Your task to perform on an android device: View the shopping cart on newegg. Add razer blade to the cart on newegg, then select checkout. Image 0: 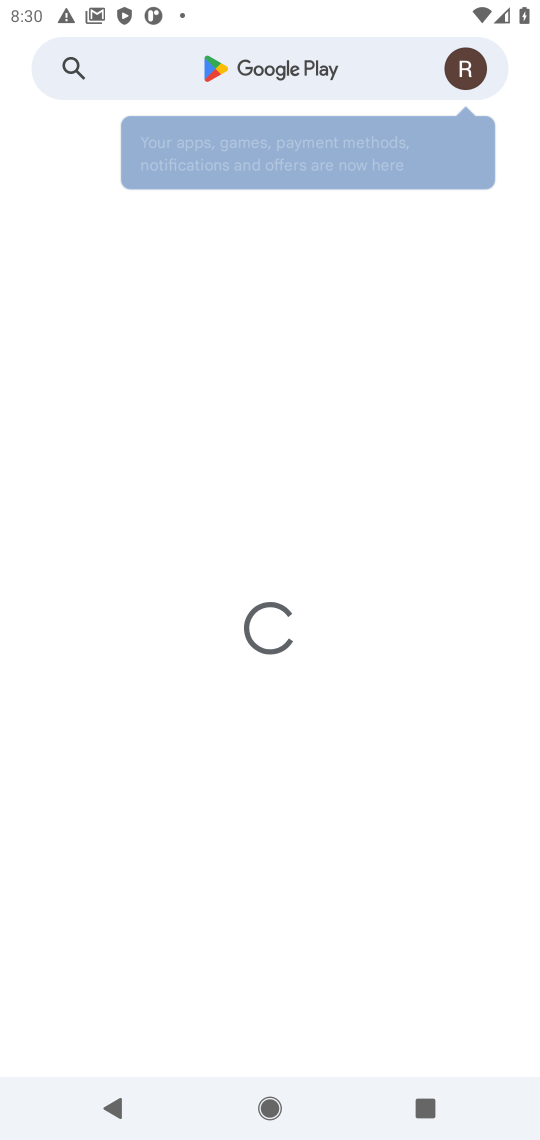
Step 0: press home button
Your task to perform on an android device: View the shopping cart on newegg. Add razer blade to the cart on newegg, then select checkout. Image 1: 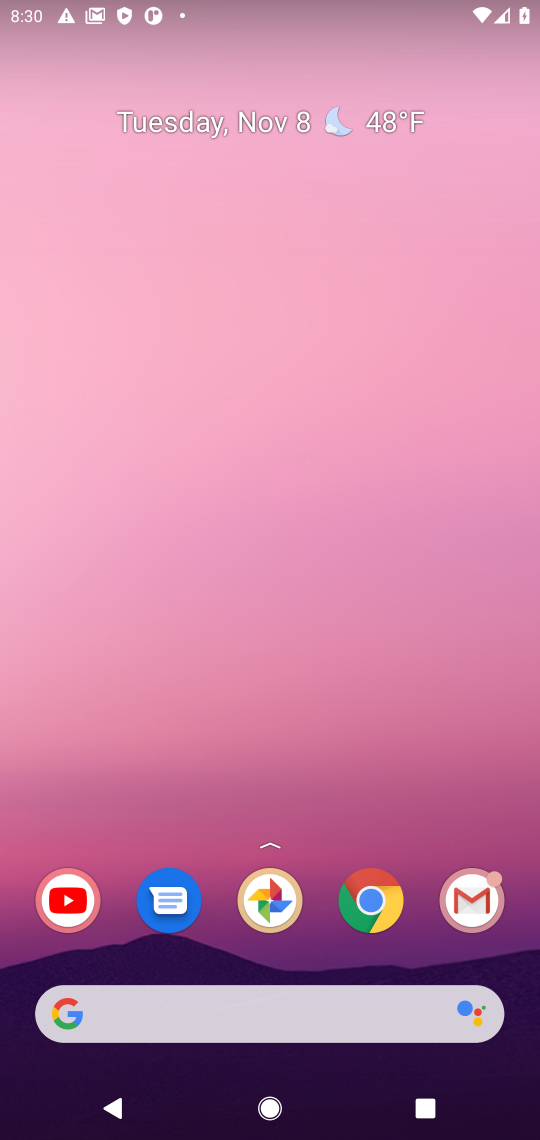
Step 1: click (359, 896)
Your task to perform on an android device: View the shopping cart on newegg. Add razer blade to the cart on newegg, then select checkout. Image 2: 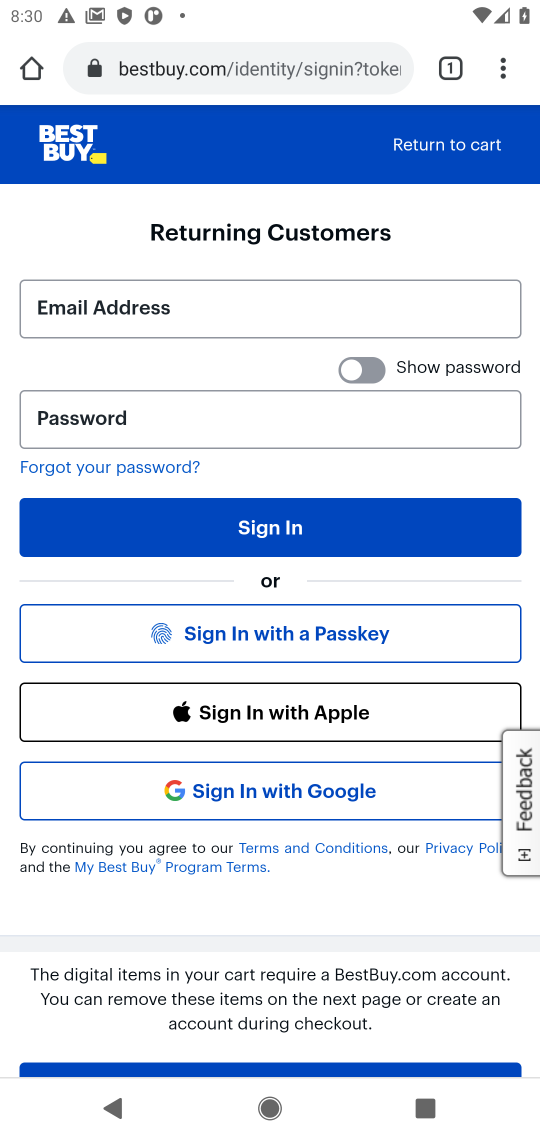
Step 2: click (199, 63)
Your task to perform on an android device: View the shopping cart on newegg. Add razer blade to the cart on newegg, then select checkout. Image 3: 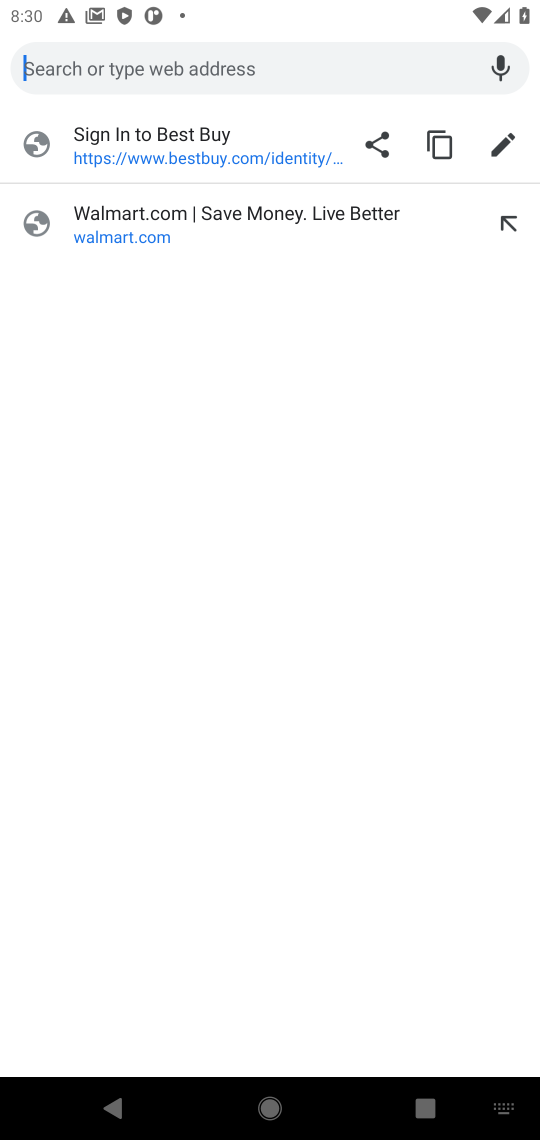
Step 3: type "newegg"
Your task to perform on an android device: View the shopping cart on newegg. Add razer blade to the cart on newegg, then select checkout. Image 4: 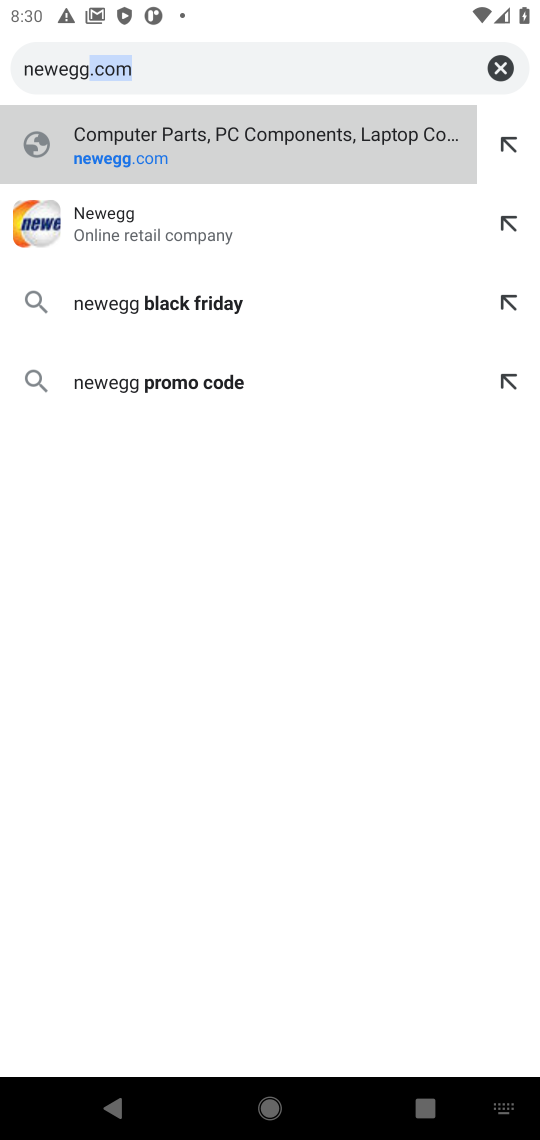
Step 4: click (116, 238)
Your task to perform on an android device: View the shopping cart on newegg. Add razer blade to the cart on newegg, then select checkout. Image 5: 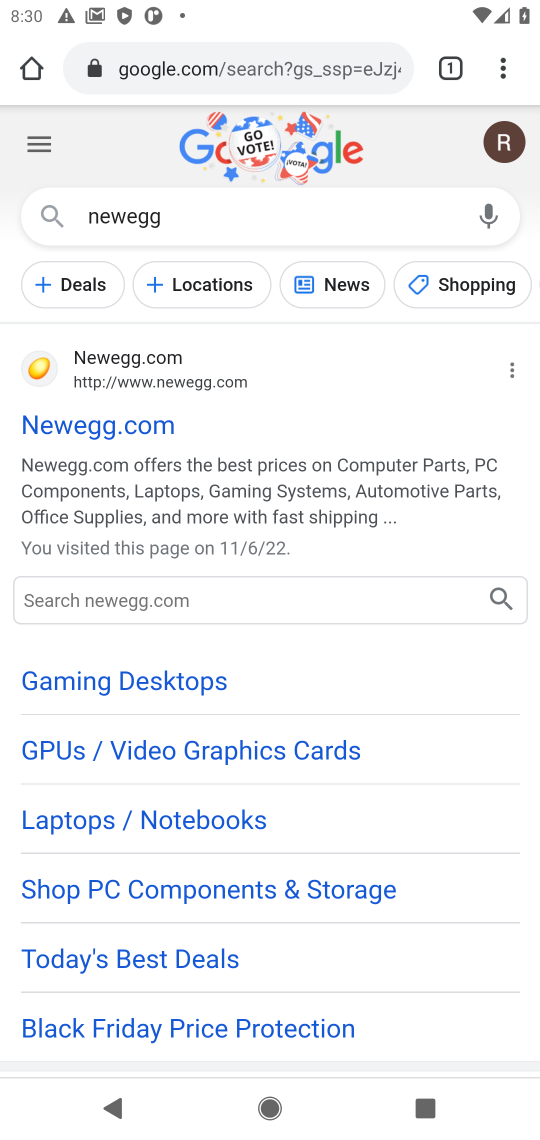
Step 5: drag from (190, 838) to (264, 403)
Your task to perform on an android device: View the shopping cart on newegg. Add razer blade to the cart on newegg, then select checkout. Image 6: 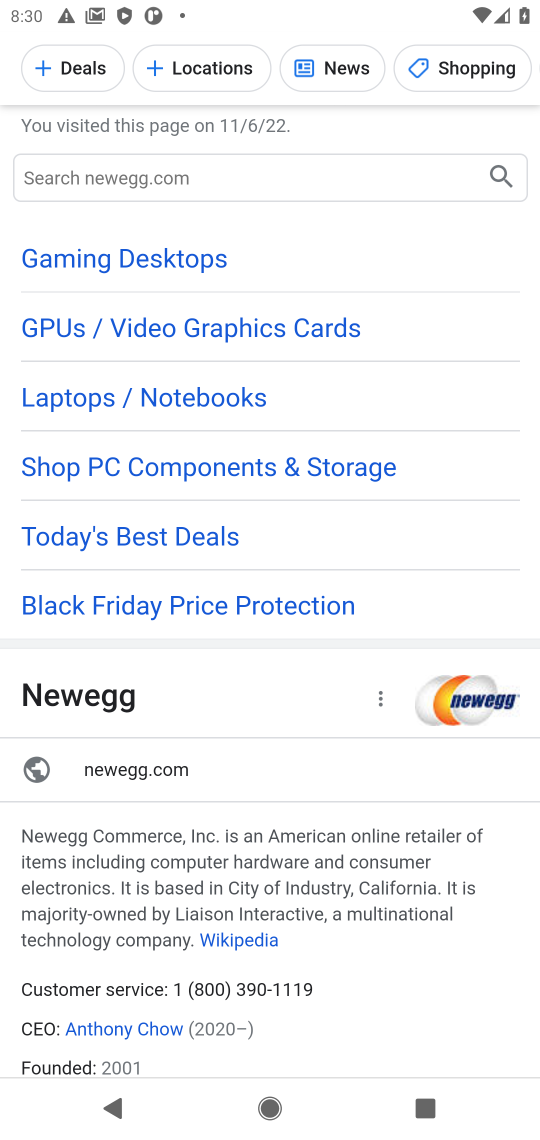
Step 6: drag from (230, 416) to (168, 980)
Your task to perform on an android device: View the shopping cart on newegg. Add razer blade to the cart on newegg, then select checkout. Image 7: 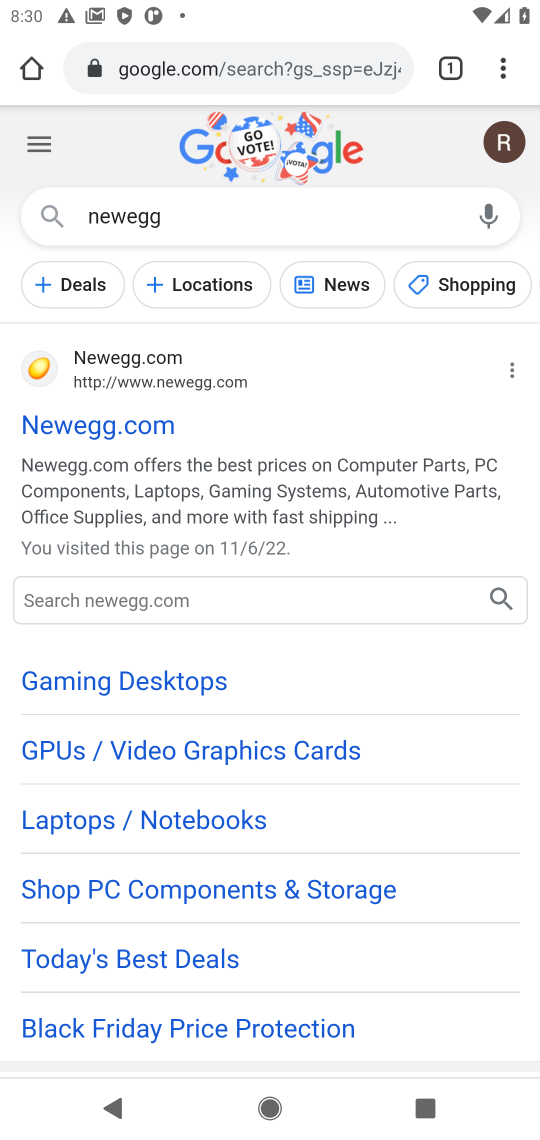
Step 7: click (92, 423)
Your task to perform on an android device: View the shopping cart on newegg. Add razer blade to the cart on newegg, then select checkout. Image 8: 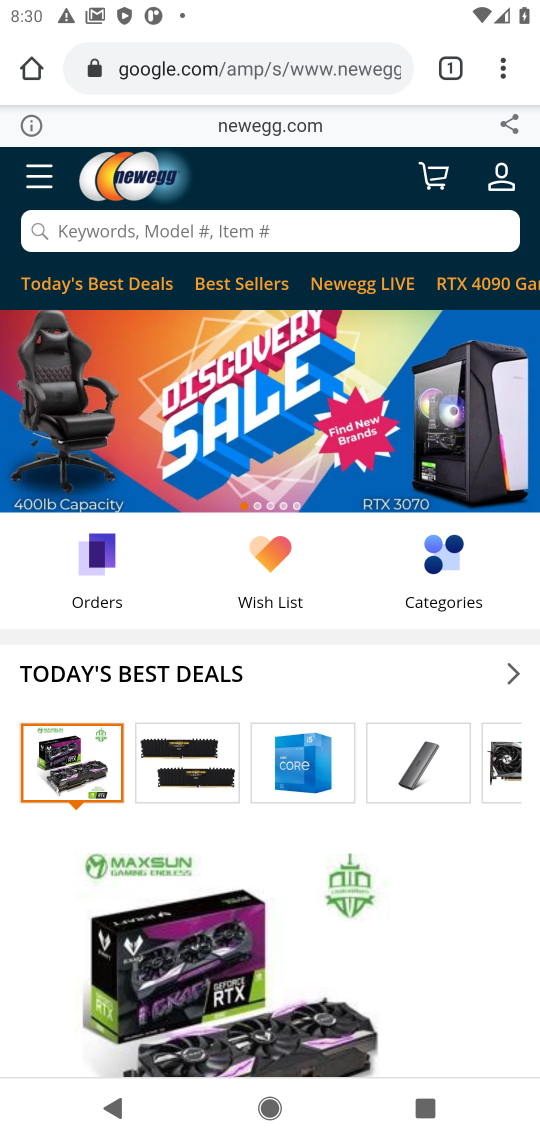
Step 8: click (228, 232)
Your task to perform on an android device: View the shopping cart on newegg. Add razer blade to the cart on newegg, then select checkout. Image 9: 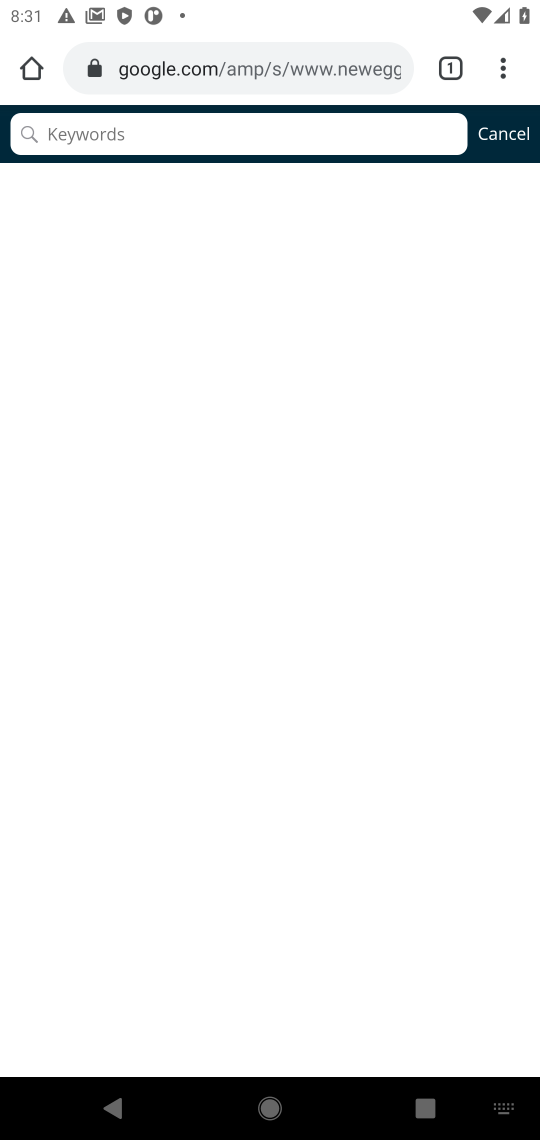
Step 9: type "razer bade"
Your task to perform on an android device: View the shopping cart on newegg. Add razer blade to the cart on newegg, then select checkout. Image 10: 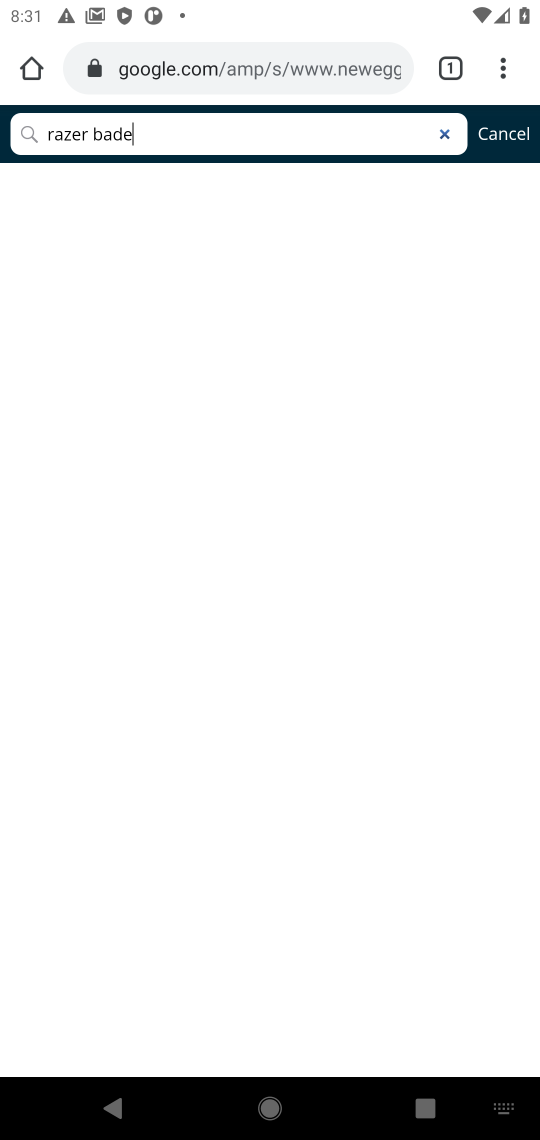
Step 10: click (442, 131)
Your task to perform on an android device: View the shopping cart on newegg. Add razer blade to the cart on newegg, then select checkout. Image 11: 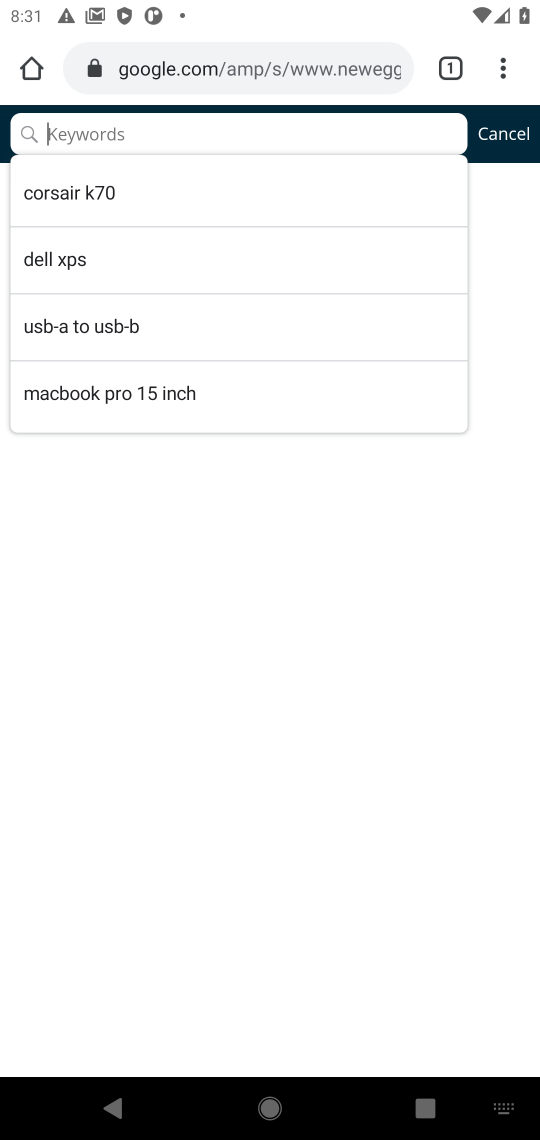
Step 11: press back button
Your task to perform on an android device: View the shopping cart on newegg. Add razer blade to the cart on newegg, then select checkout. Image 12: 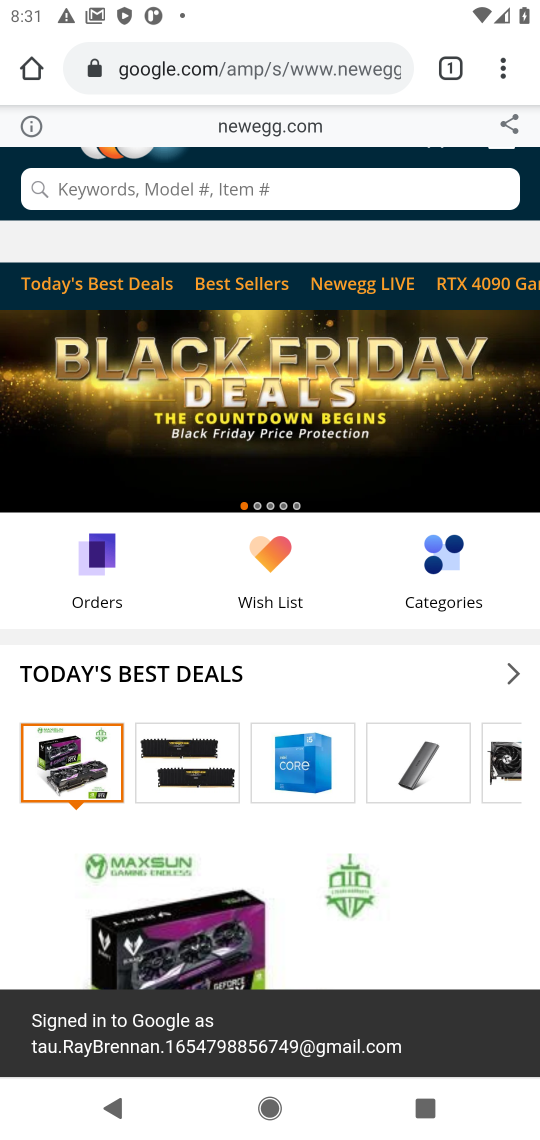
Step 12: press back button
Your task to perform on an android device: View the shopping cart on newegg. Add razer blade to the cart on newegg, then select checkout. Image 13: 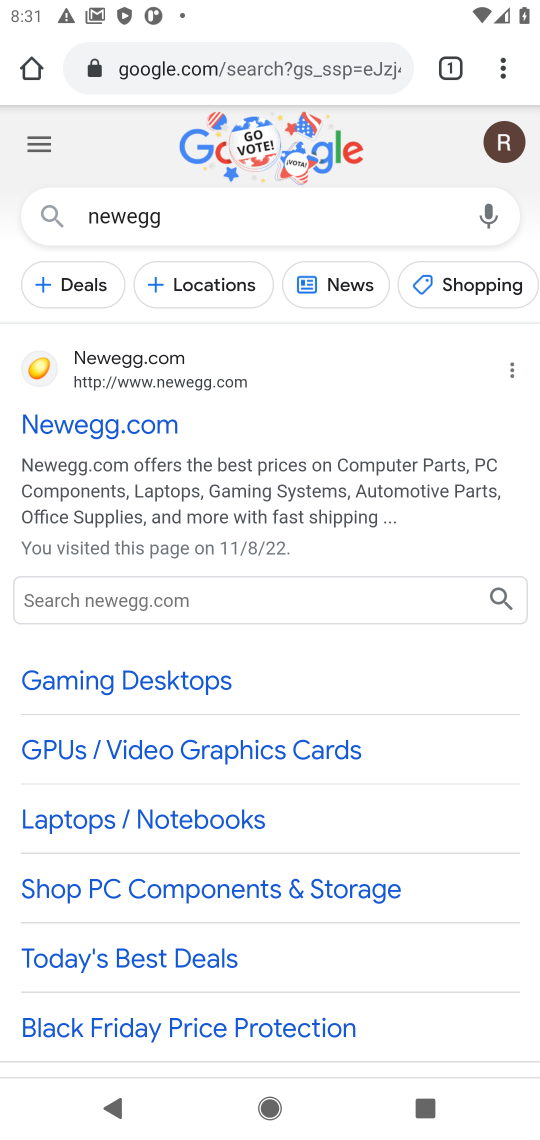
Step 13: drag from (231, 923) to (256, 293)
Your task to perform on an android device: View the shopping cart on newegg. Add razer blade to the cart on newegg, then select checkout. Image 14: 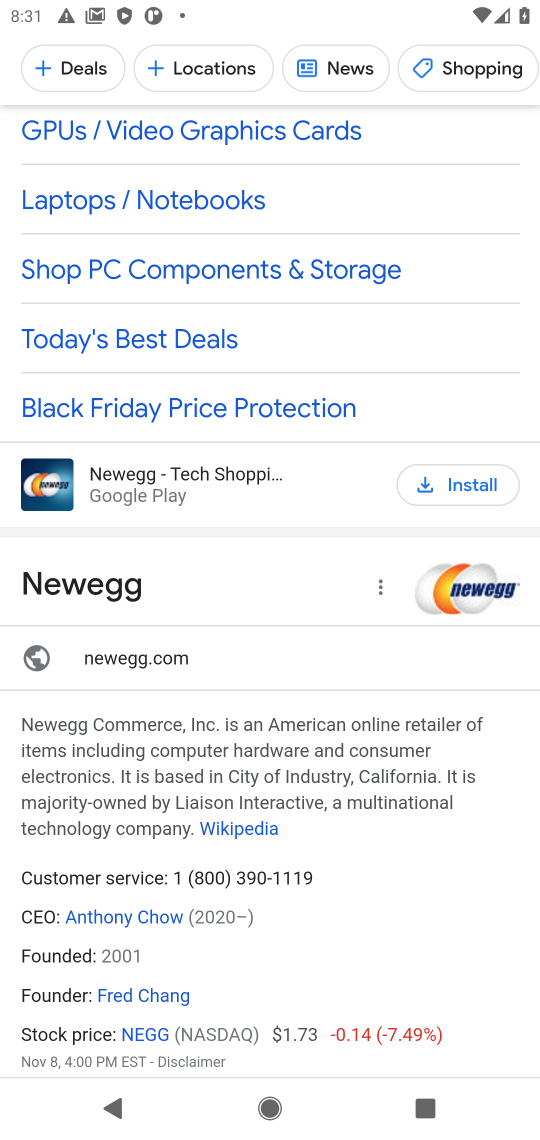
Step 14: drag from (193, 877) to (292, 352)
Your task to perform on an android device: View the shopping cart on newegg. Add razer blade to the cart on newegg, then select checkout. Image 15: 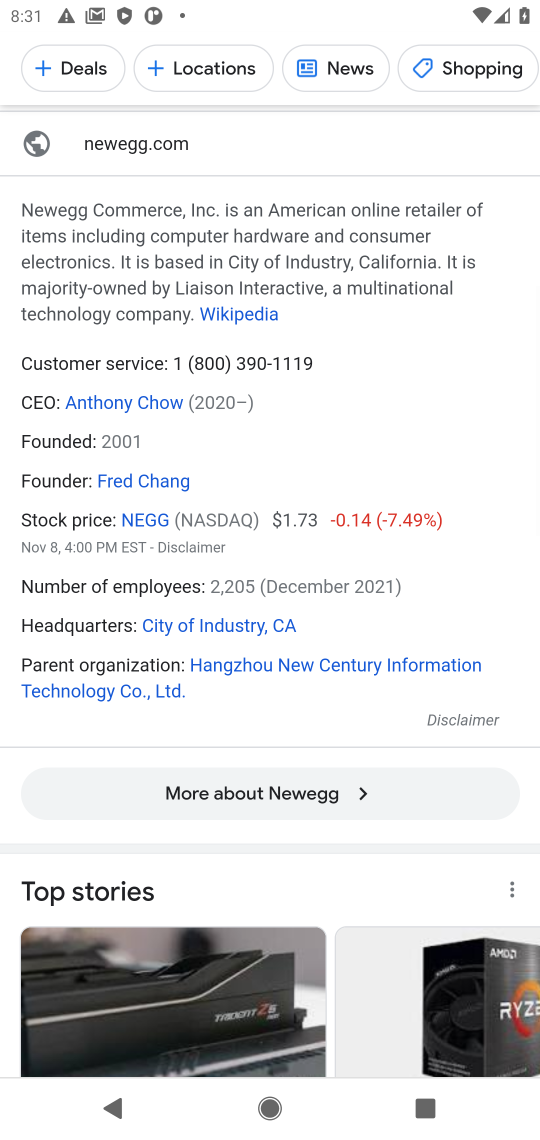
Step 15: drag from (187, 968) to (184, 400)
Your task to perform on an android device: View the shopping cart on newegg. Add razer blade to the cart on newegg, then select checkout. Image 16: 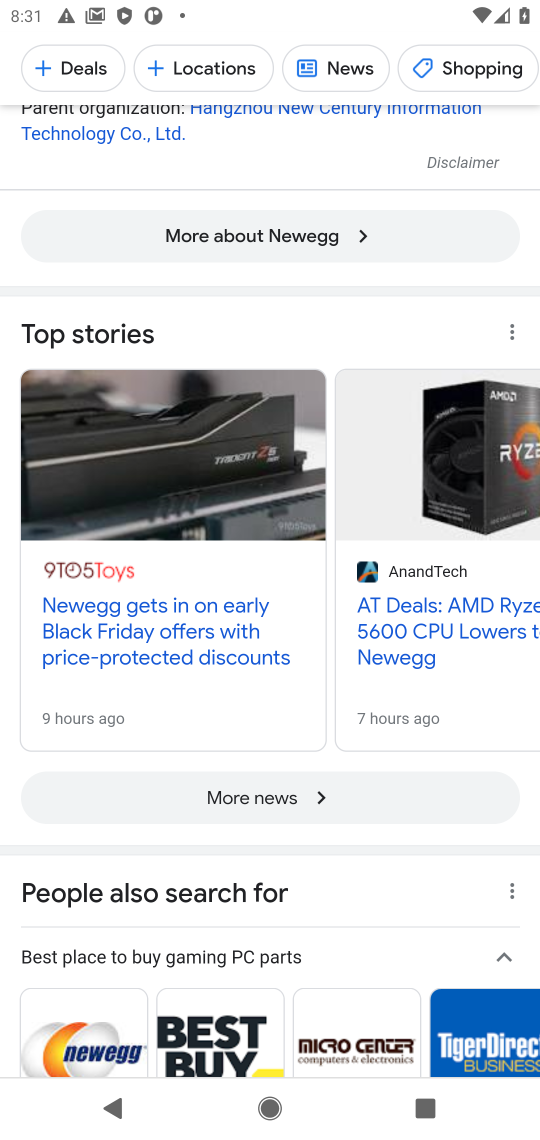
Step 16: drag from (264, 480) to (222, 1010)
Your task to perform on an android device: View the shopping cart on newegg. Add razer blade to the cart on newegg, then select checkout. Image 17: 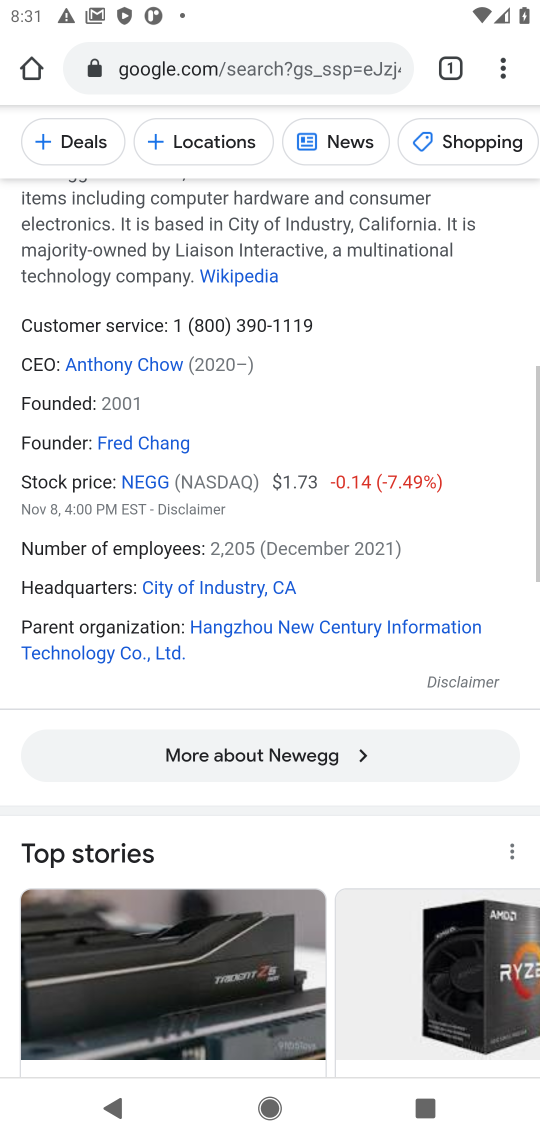
Step 17: drag from (164, 672) to (46, 928)
Your task to perform on an android device: View the shopping cart on newegg. Add razer blade to the cart on newegg, then select checkout. Image 18: 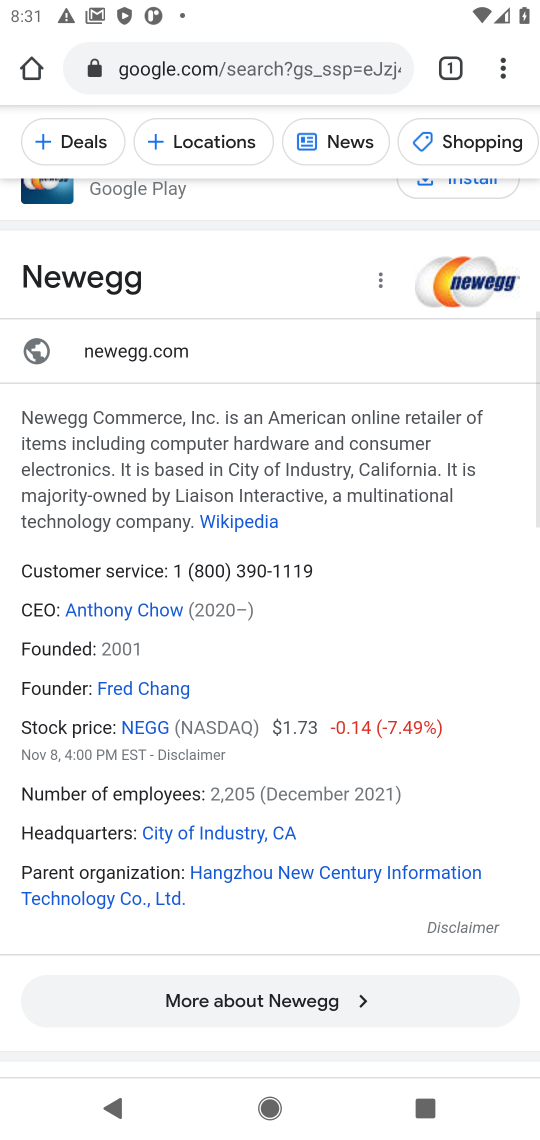
Step 18: drag from (137, 360) to (8, 653)
Your task to perform on an android device: View the shopping cart on newegg. Add razer blade to the cart on newegg, then select checkout. Image 19: 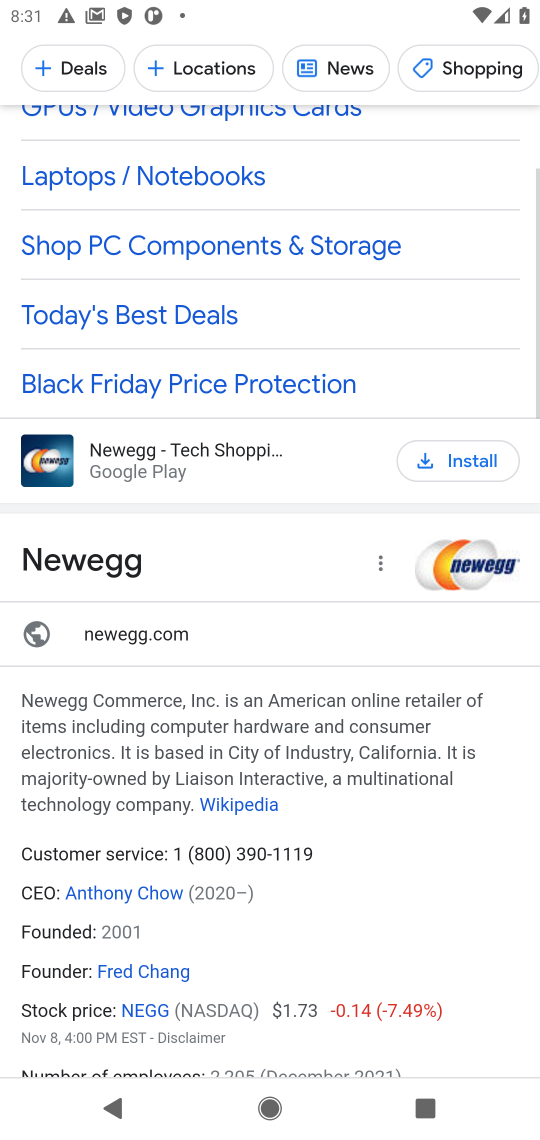
Step 19: drag from (300, 469) to (10, 693)
Your task to perform on an android device: View the shopping cart on newegg. Add razer blade to the cart on newegg, then select checkout. Image 20: 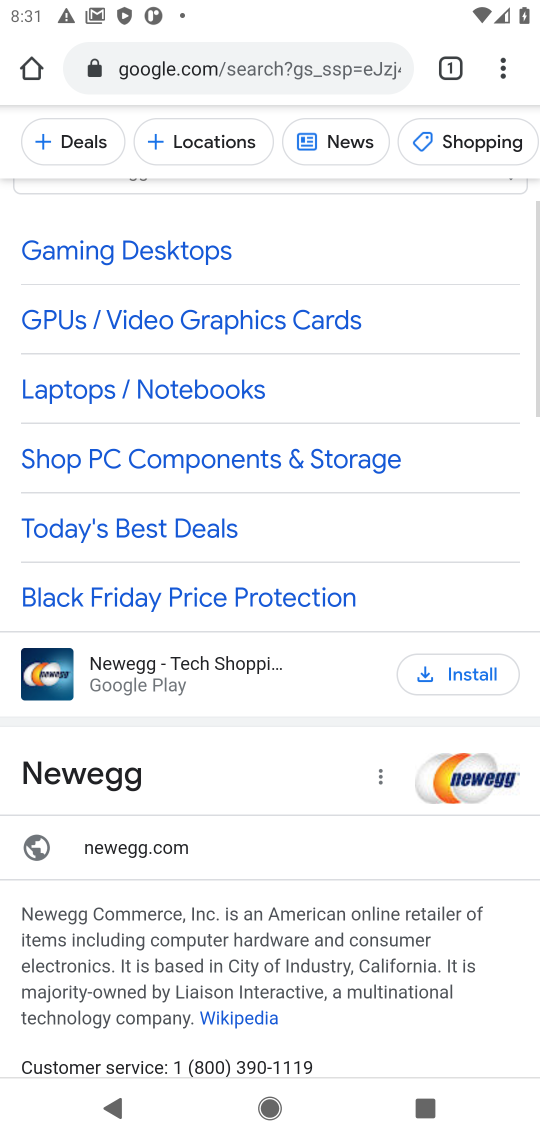
Step 20: drag from (201, 413) to (11, 816)
Your task to perform on an android device: View the shopping cart on newegg. Add razer blade to the cart on newegg, then select checkout. Image 21: 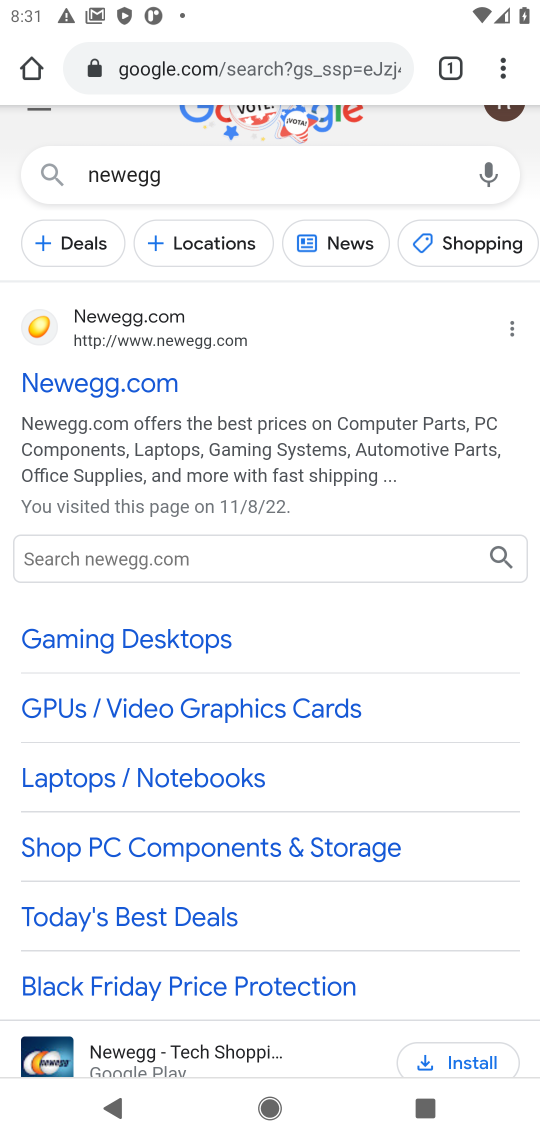
Step 21: drag from (274, 653) to (124, 859)
Your task to perform on an android device: View the shopping cart on newegg. Add razer blade to the cart on newegg, then select checkout. Image 22: 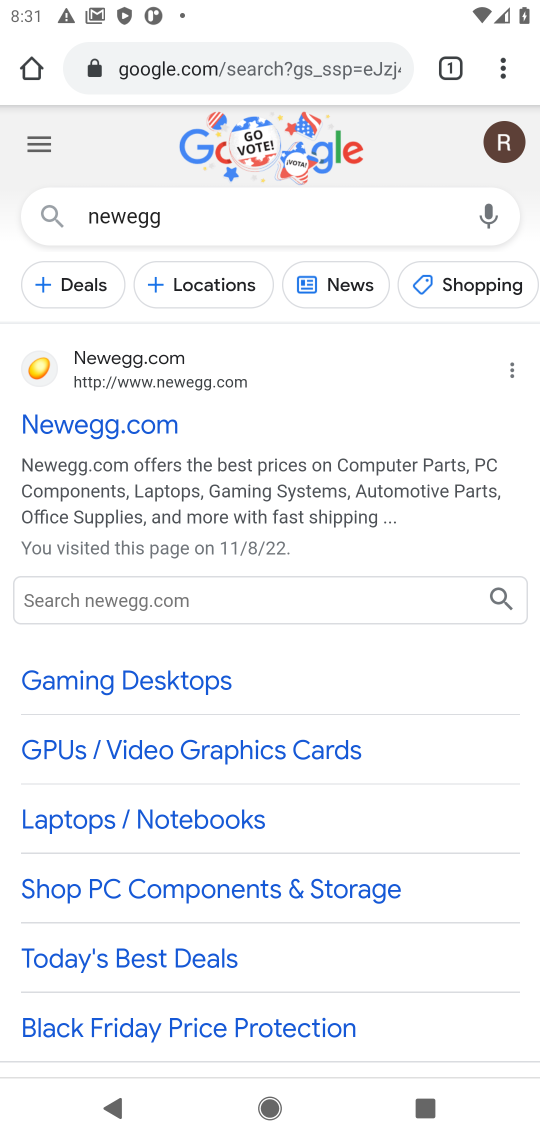
Step 22: click (77, 421)
Your task to perform on an android device: View the shopping cart on newegg. Add razer blade to the cart on newegg, then select checkout. Image 23: 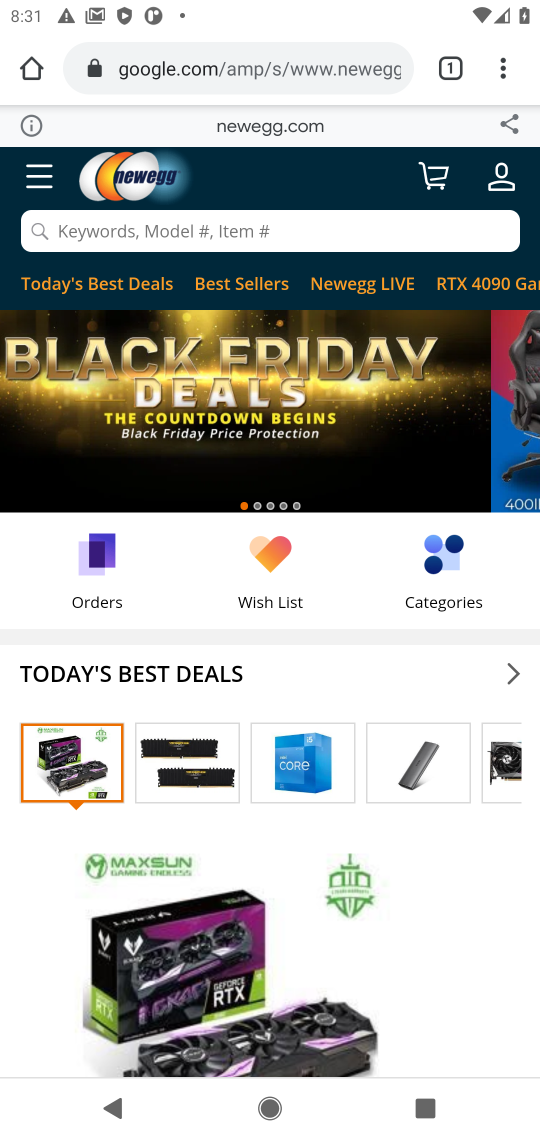
Step 23: click (139, 223)
Your task to perform on an android device: View the shopping cart on newegg. Add razer blade to the cart on newegg, then select checkout. Image 24: 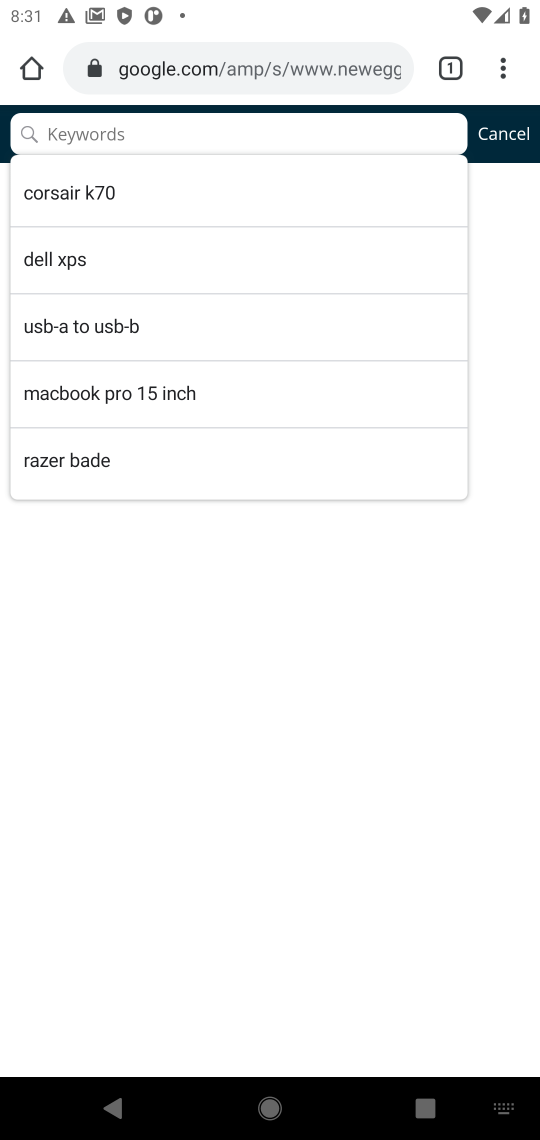
Step 24: click (76, 462)
Your task to perform on an android device: View the shopping cart on newegg. Add razer blade to the cart on newegg, then select checkout. Image 25: 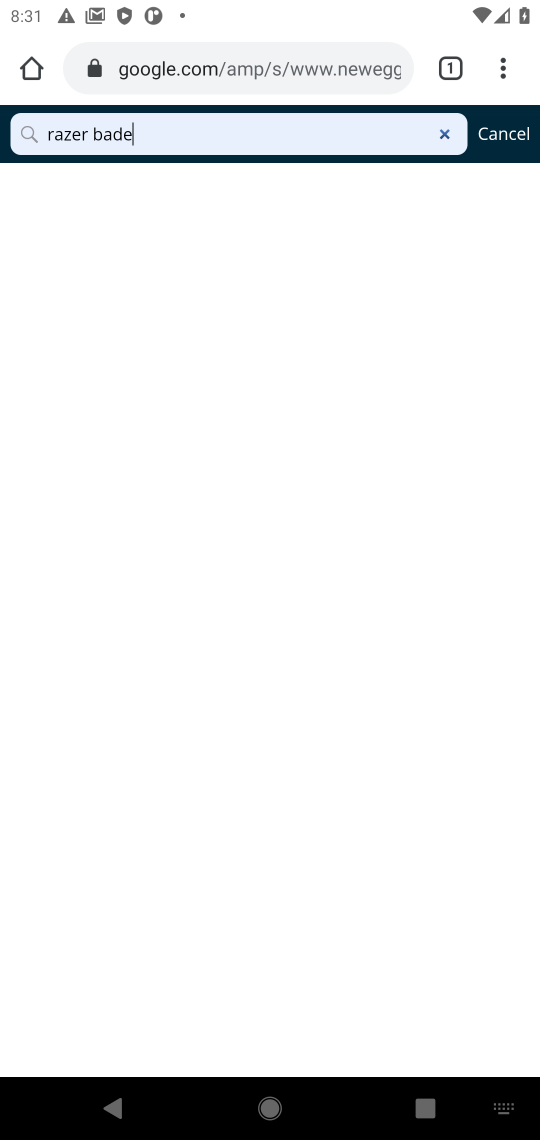
Step 25: type ""
Your task to perform on an android device: View the shopping cart on newegg. Add razer blade to the cart on newegg, then select checkout. Image 26: 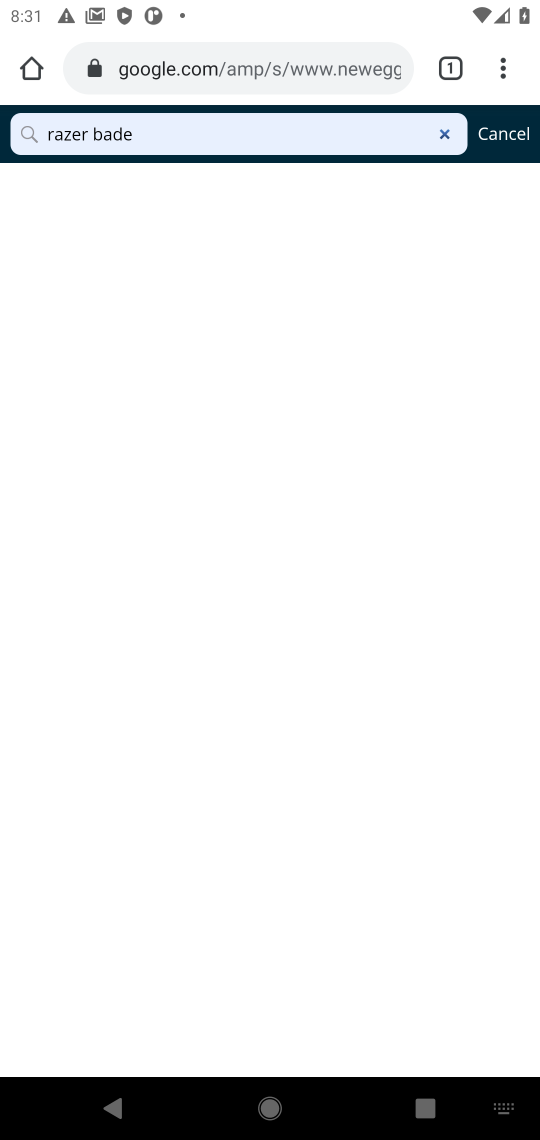
Step 26: click (444, 136)
Your task to perform on an android device: View the shopping cart on newegg. Add razer blade to the cart on newegg, then select checkout. Image 27: 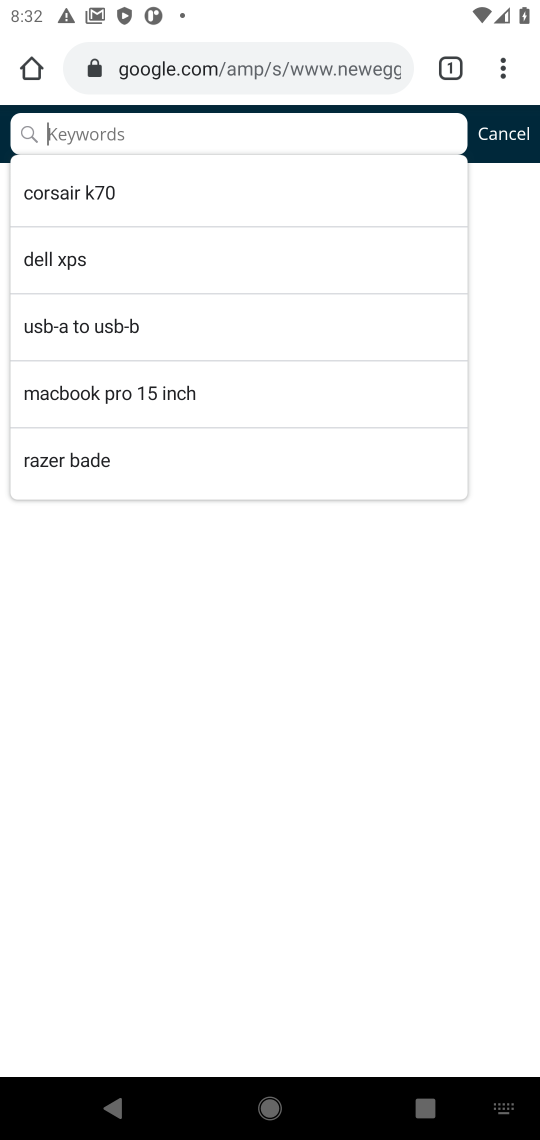
Step 27: type "razer blade"
Your task to perform on an android device: View the shopping cart on newegg. Add razer blade to the cart on newegg, then select checkout. Image 28: 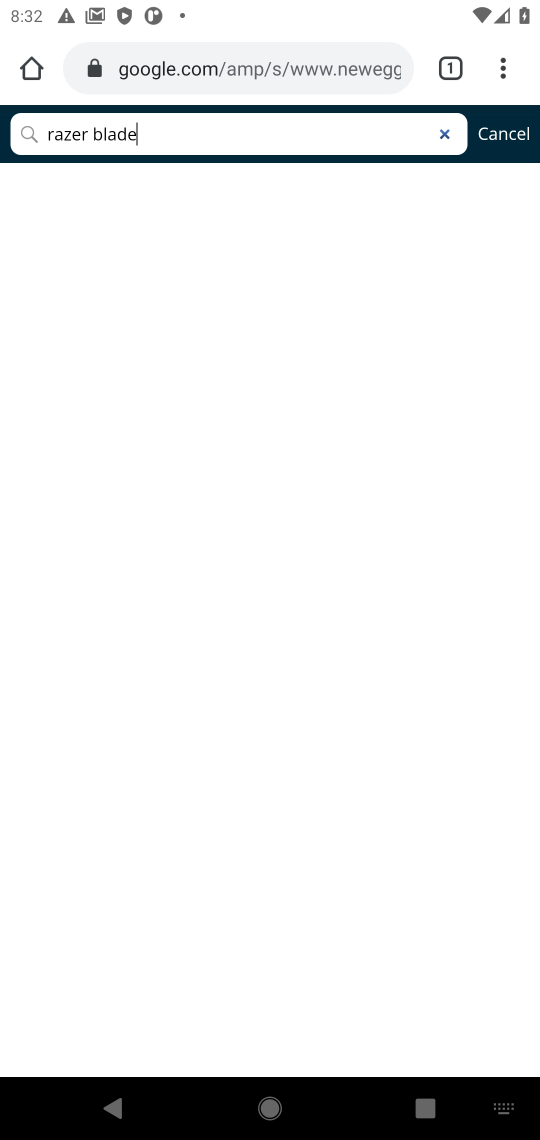
Step 28: click (442, 131)
Your task to perform on an android device: View the shopping cart on newegg. Add razer blade to the cart on newegg, then select checkout. Image 29: 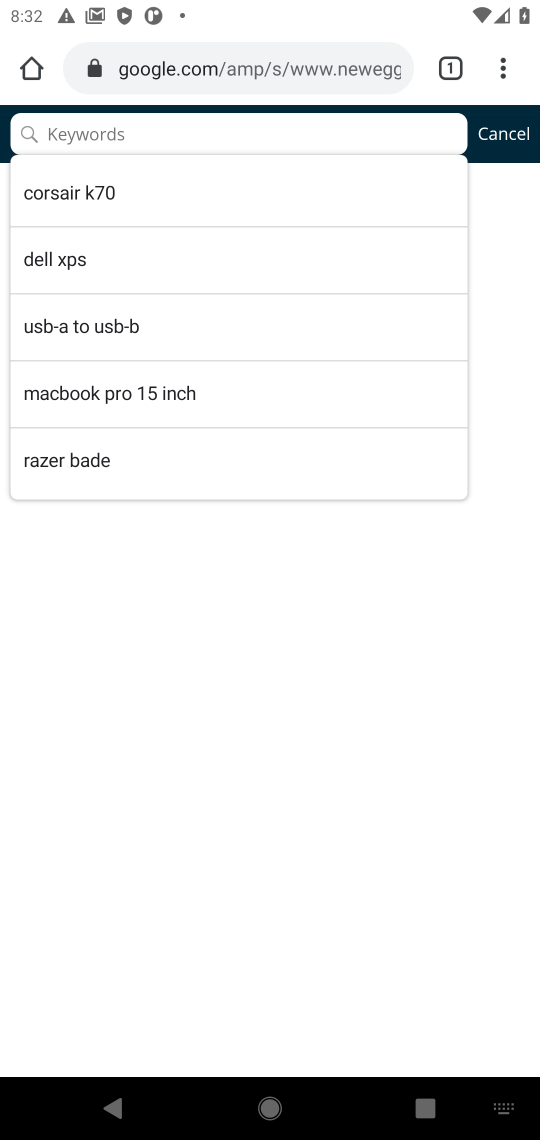
Step 29: press back button
Your task to perform on an android device: View the shopping cart on newegg. Add razer blade to the cart on newegg, then select checkout. Image 30: 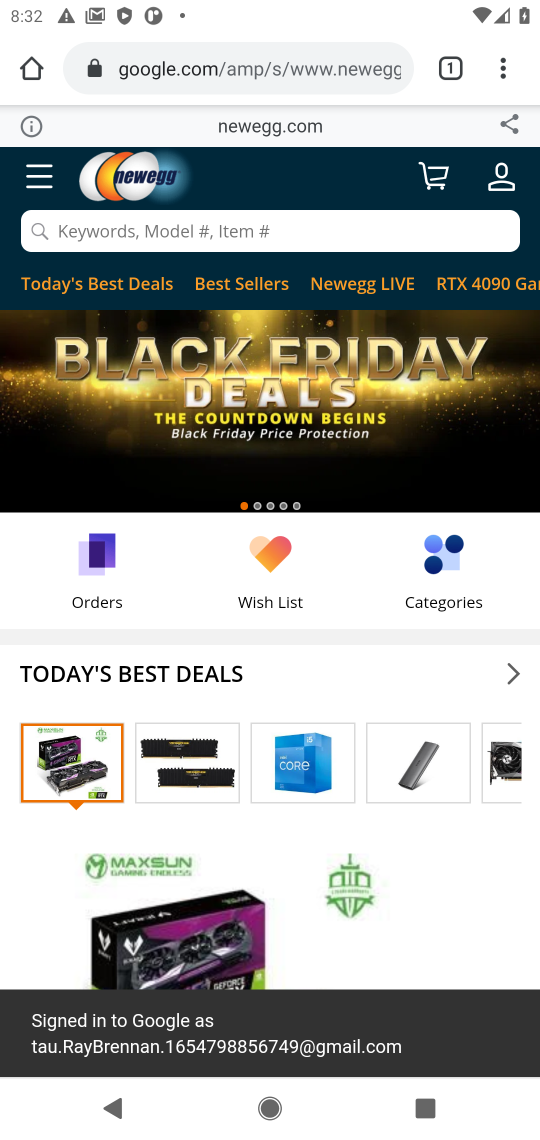
Step 30: press back button
Your task to perform on an android device: View the shopping cart on newegg. Add razer blade to the cart on newegg, then select checkout. Image 31: 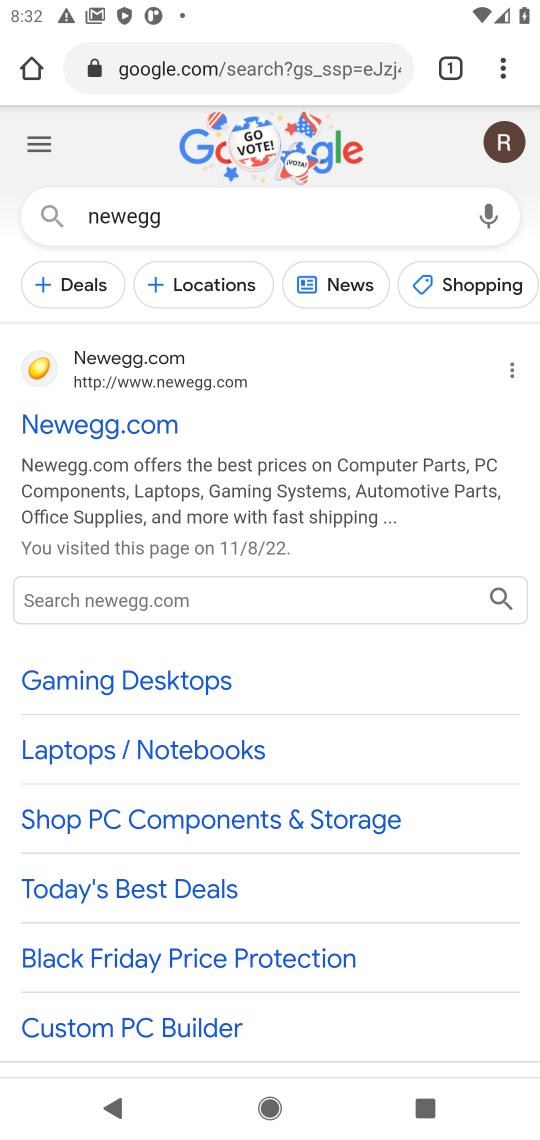
Step 31: drag from (430, 814) to (330, 186)
Your task to perform on an android device: View the shopping cart on newegg. Add razer blade to the cart on newegg, then select checkout. Image 32: 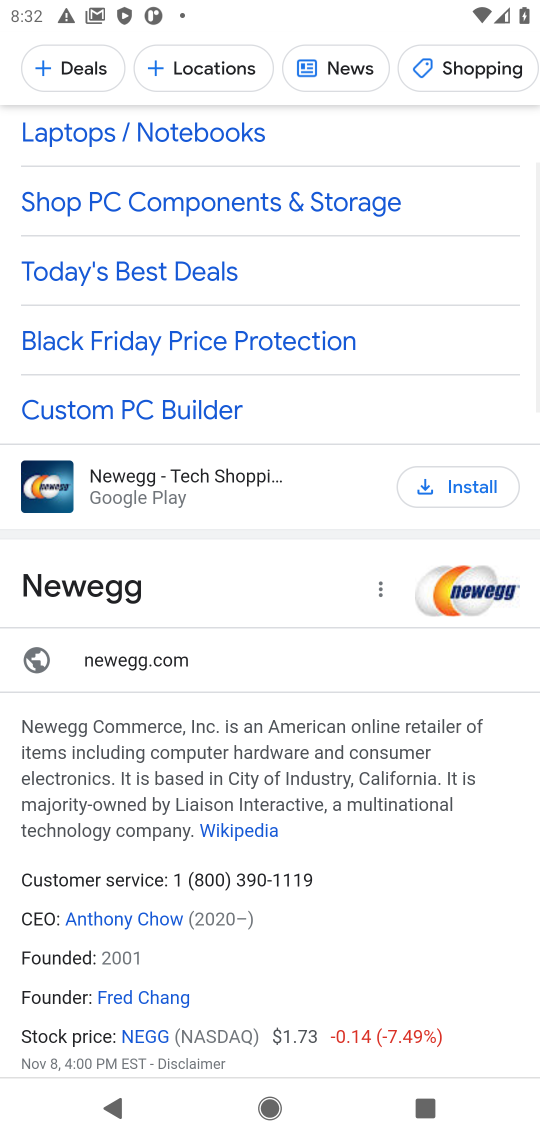
Step 32: drag from (264, 905) to (159, 450)
Your task to perform on an android device: View the shopping cart on newegg. Add razer blade to the cart on newegg, then select checkout. Image 33: 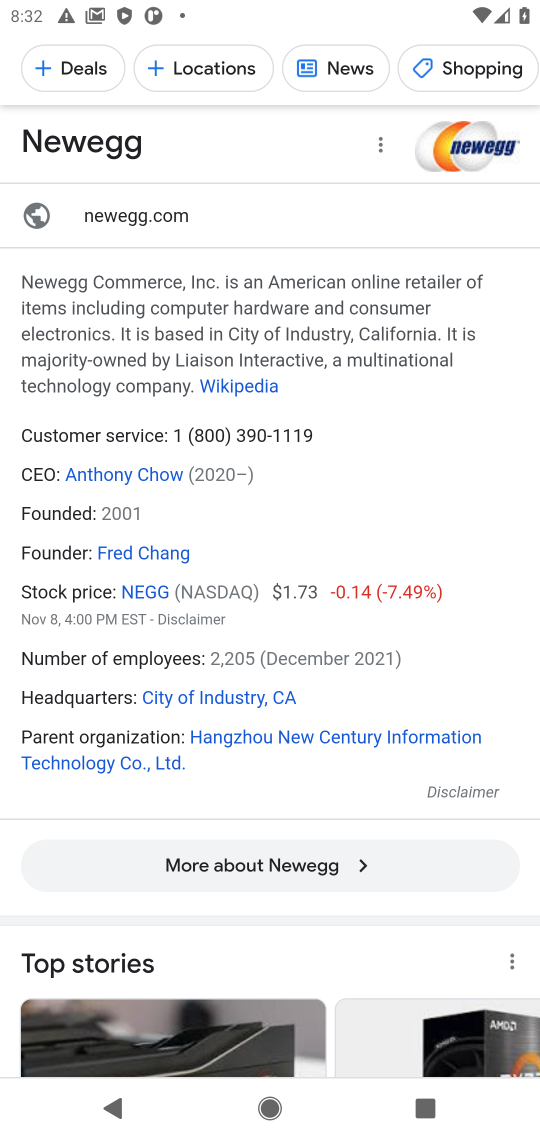
Step 33: drag from (325, 975) to (311, 487)
Your task to perform on an android device: View the shopping cart on newegg. Add razer blade to the cart on newegg, then select checkout. Image 34: 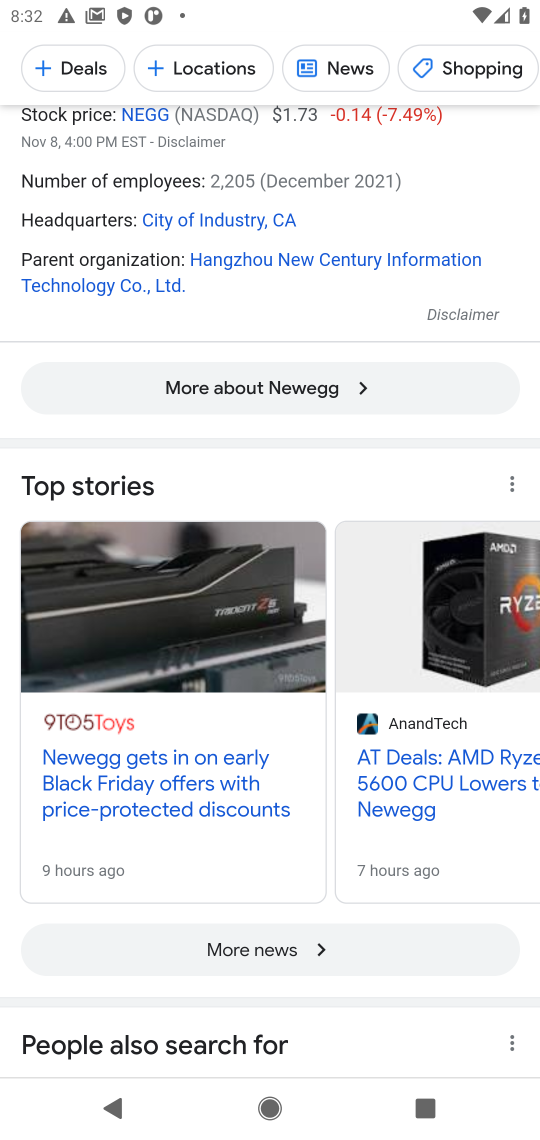
Step 34: drag from (179, 819) to (165, 322)
Your task to perform on an android device: View the shopping cart on newegg. Add razer blade to the cart on newegg, then select checkout. Image 35: 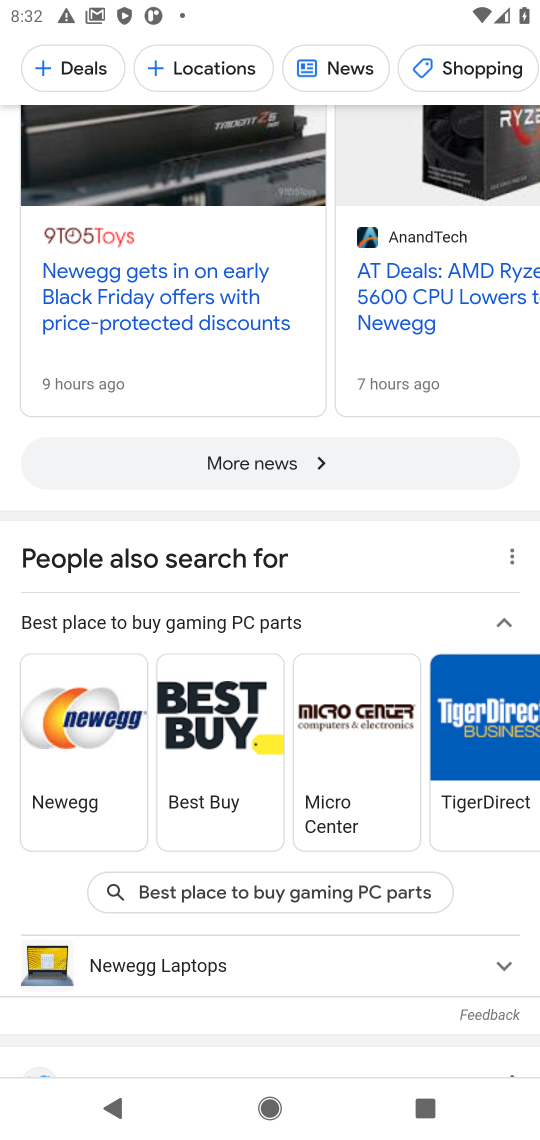
Step 35: click (190, 897)
Your task to perform on an android device: View the shopping cart on newegg. Add razer blade to the cart on newegg, then select checkout. Image 36: 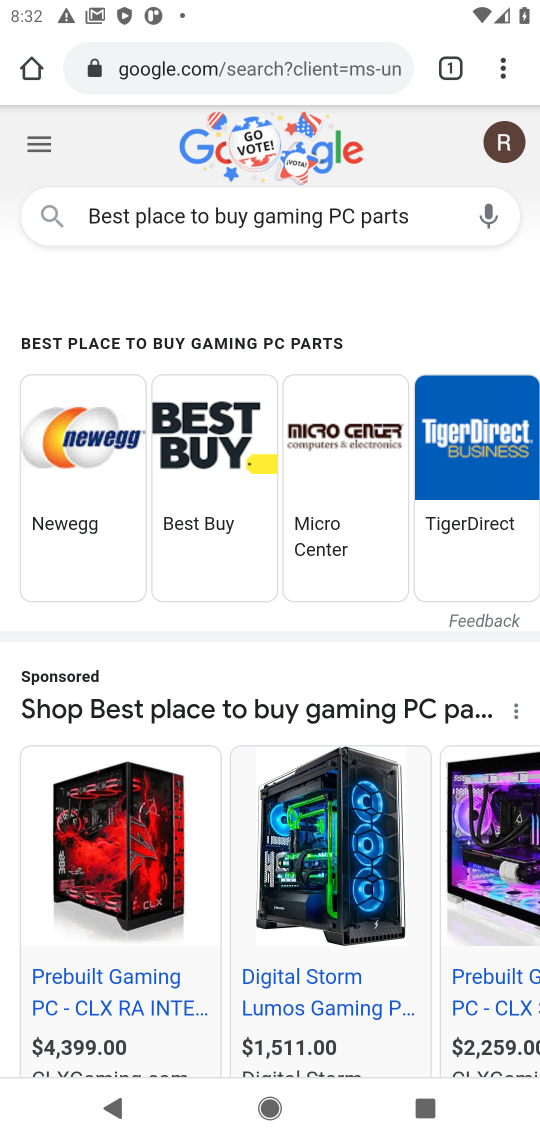
Step 36: click (365, 207)
Your task to perform on an android device: View the shopping cart on newegg. Add razer blade to the cart on newegg, then select checkout. Image 37: 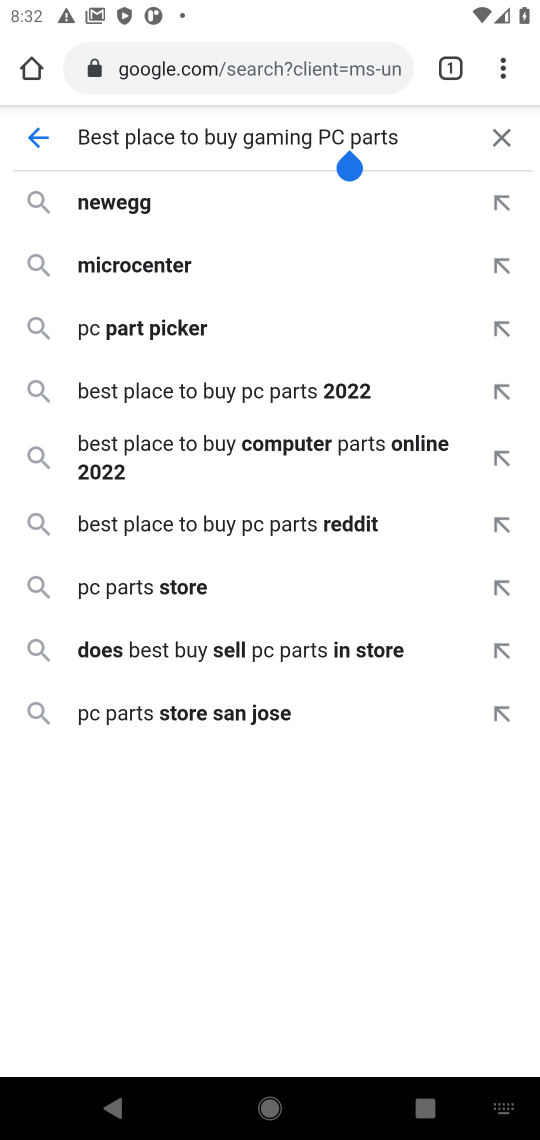
Step 37: click (506, 137)
Your task to perform on an android device: View the shopping cart on newegg. Add razer blade to the cart on newegg, then select checkout. Image 38: 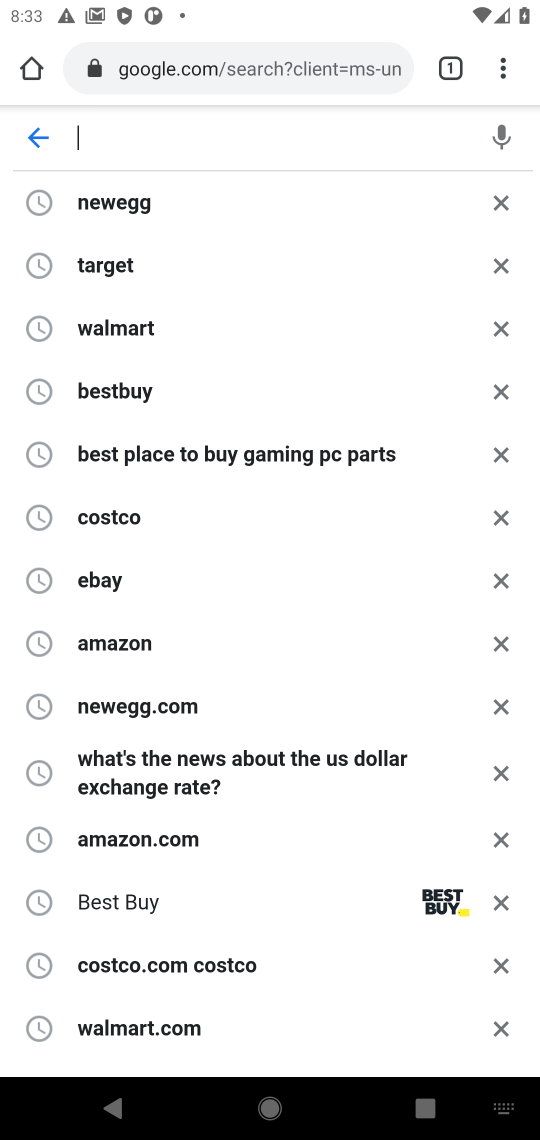
Step 38: type "razer blade"
Your task to perform on an android device: View the shopping cart on newegg. Add razer blade to the cart on newegg, then select checkout. Image 39: 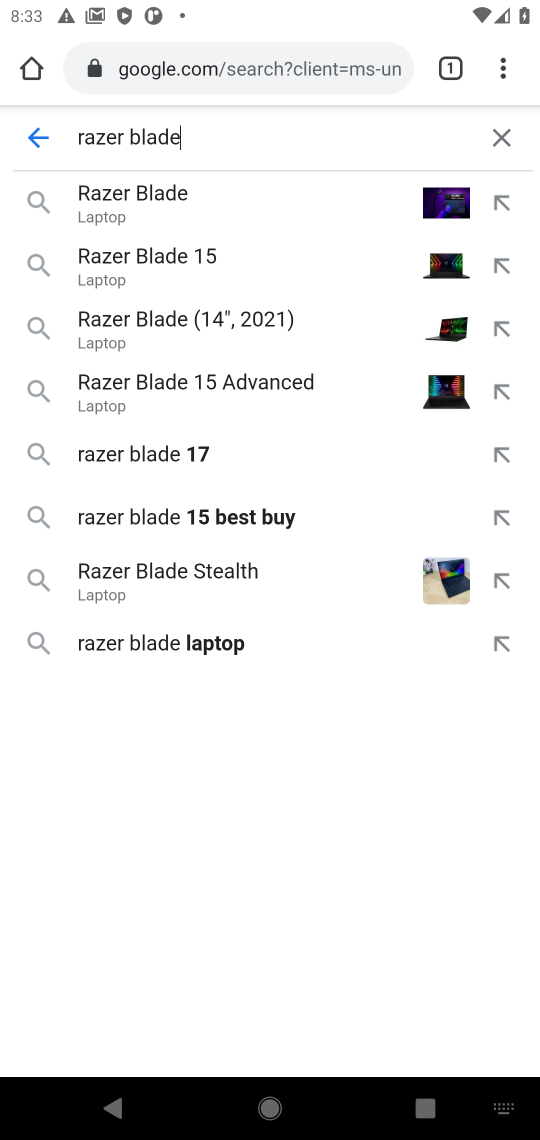
Step 39: type ""
Your task to perform on an android device: View the shopping cart on newegg. Add razer blade to the cart on newegg, then select checkout. Image 40: 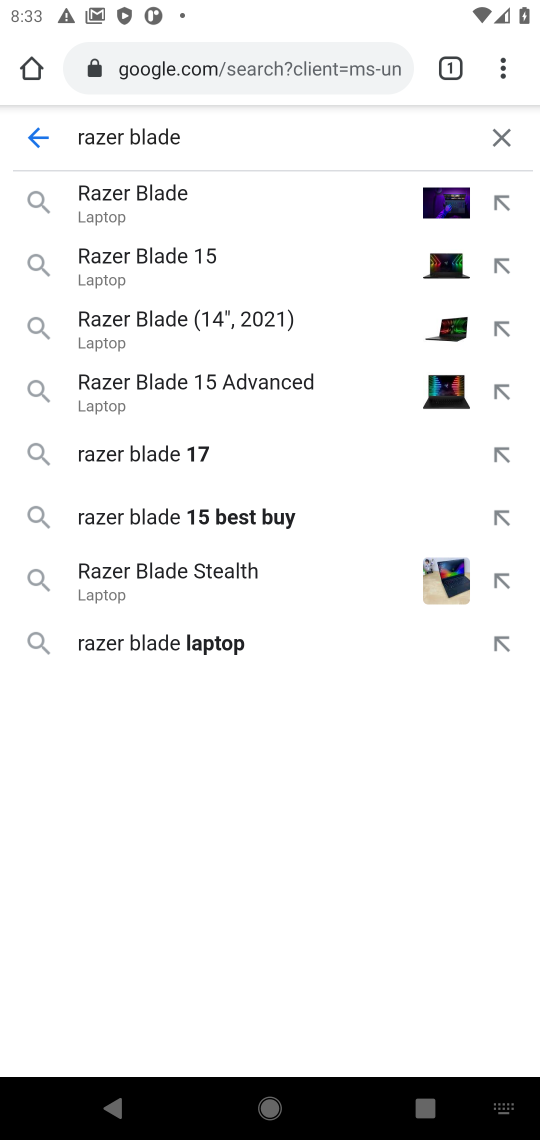
Step 40: click (132, 253)
Your task to perform on an android device: View the shopping cart on newegg. Add razer blade to the cart on newegg, then select checkout. Image 41: 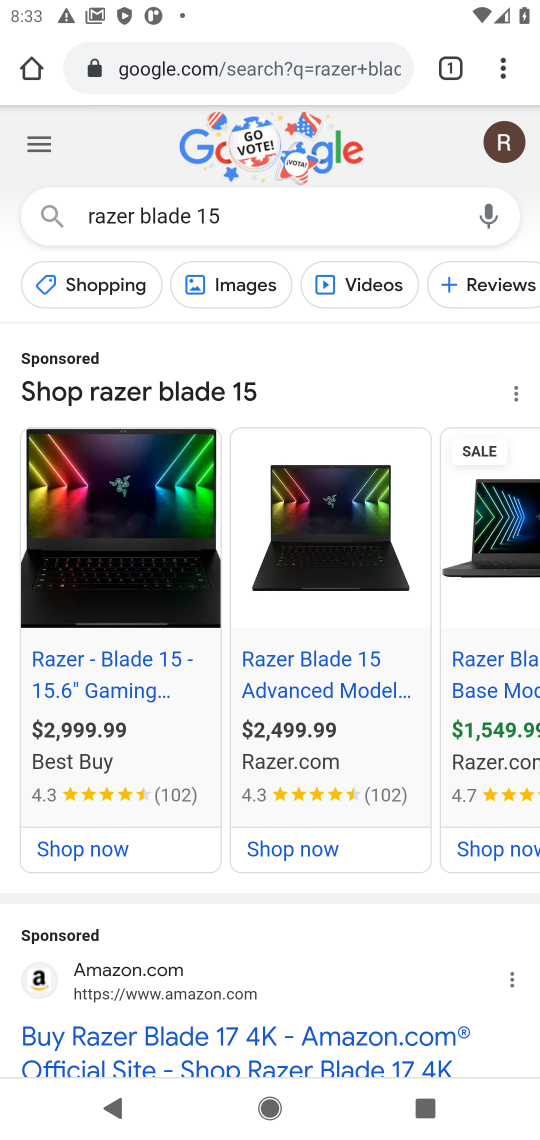
Step 41: click (81, 521)
Your task to perform on an android device: View the shopping cart on newegg. Add razer blade to the cart on newegg, then select checkout. Image 42: 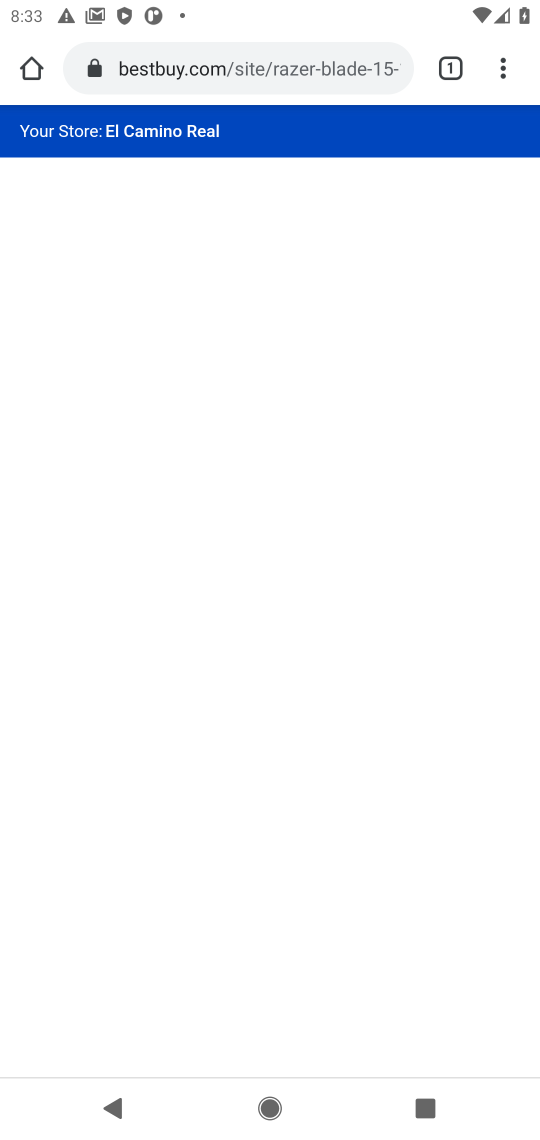
Step 42: click (134, 660)
Your task to perform on an android device: View the shopping cart on newegg. Add razer blade to the cart on newegg, then select checkout. Image 43: 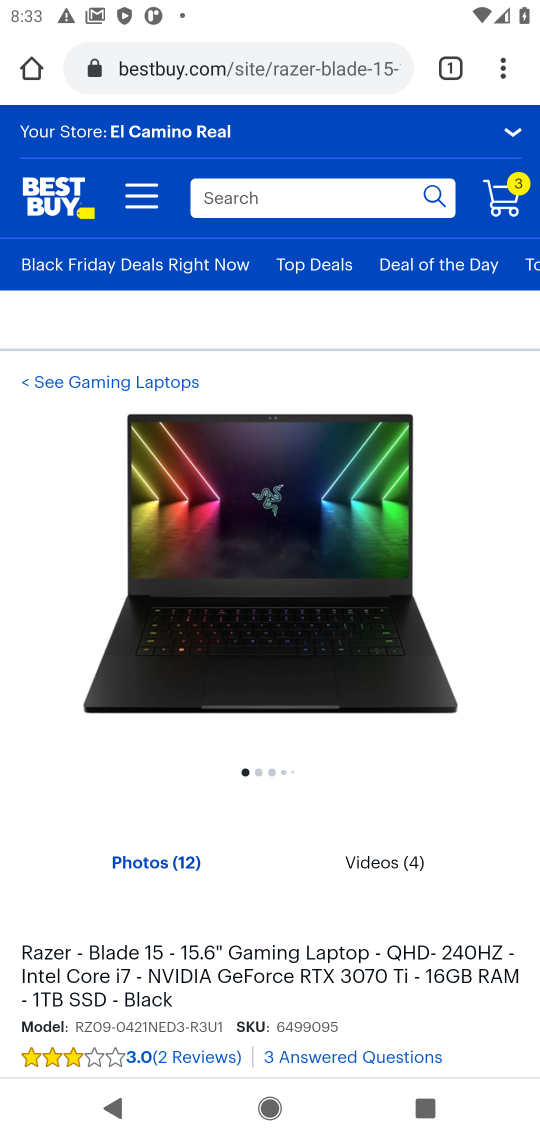
Step 43: click (239, 841)
Your task to perform on an android device: View the shopping cart on newegg. Add razer blade to the cart on newegg, then select checkout. Image 44: 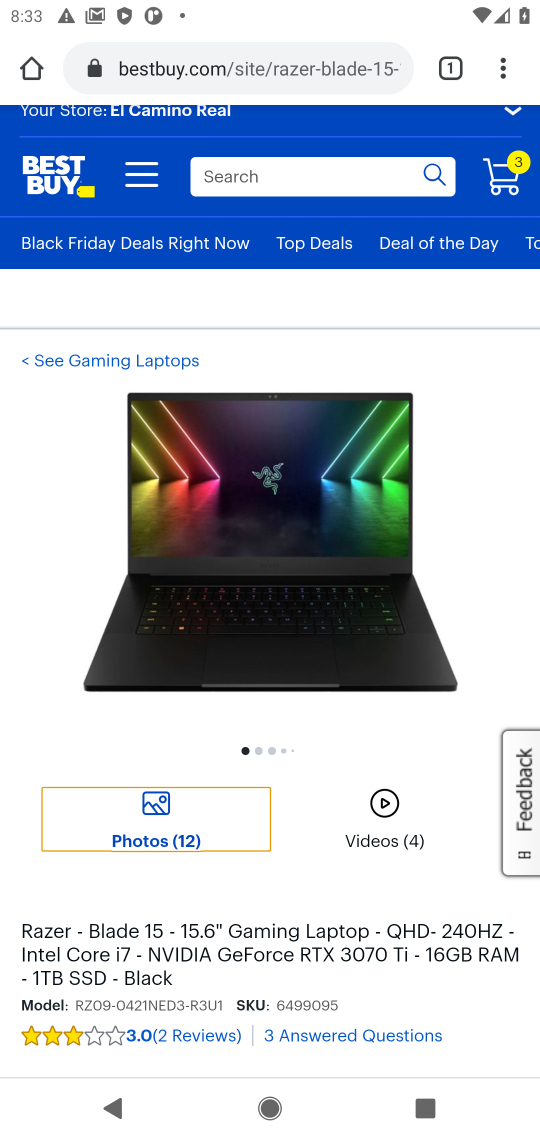
Step 44: drag from (247, 825) to (334, 336)
Your task to perform on an android device: View the shopping cart on newegg. Add razer blade to the cart on newegg, then select checkout. Image 45: 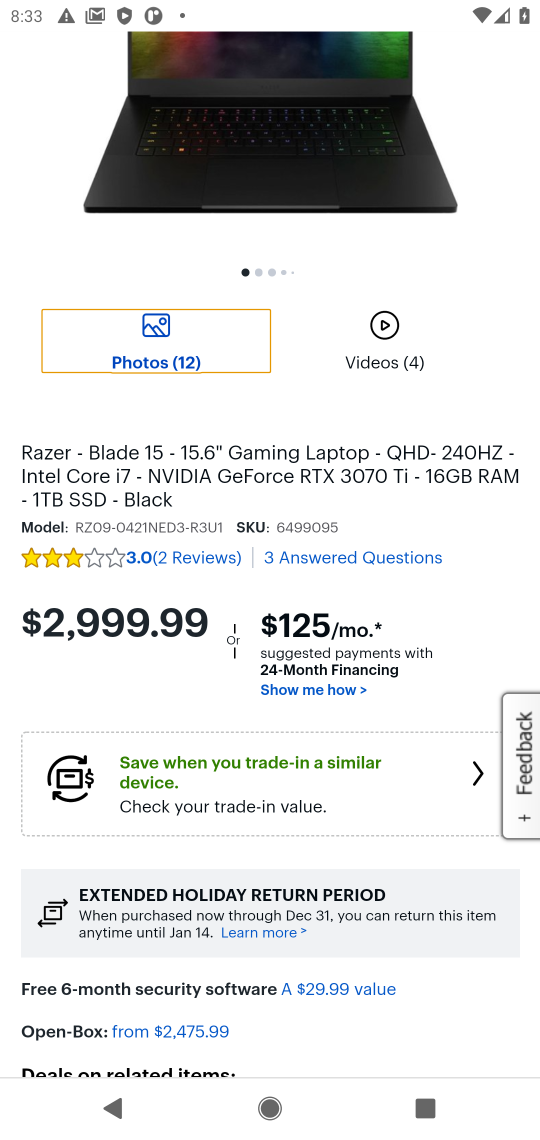
Step 45: drag from (210, 762) to (249, 259)
Your task to perform on an android device: View the shopping cart on newegg. Add razer blade to the cart on newegg, then select checkout. Image 46: 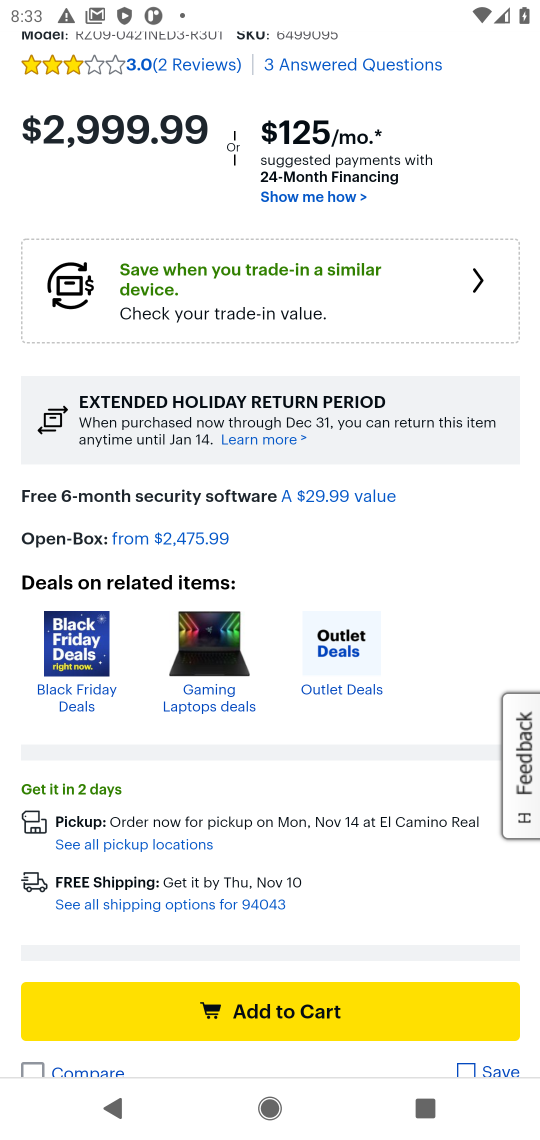
Step 46: drag from (149, 886) to (158, 480)
Your task to perform on an android device: View the shopping cart on newegg. Add razer blade to the cart on newegg, then select checkout. Image 47: 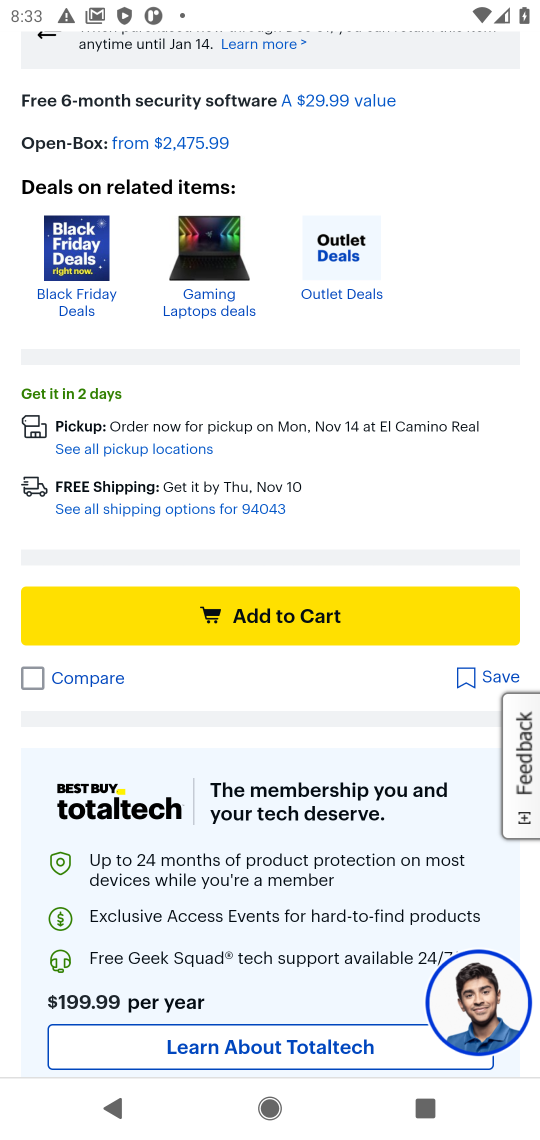
Step 47: click (288, 613)
Your task to perform on an android device: View the shopping cart on newegg. Add razer blade to the cart on newegg, then select checkout. Image 48: 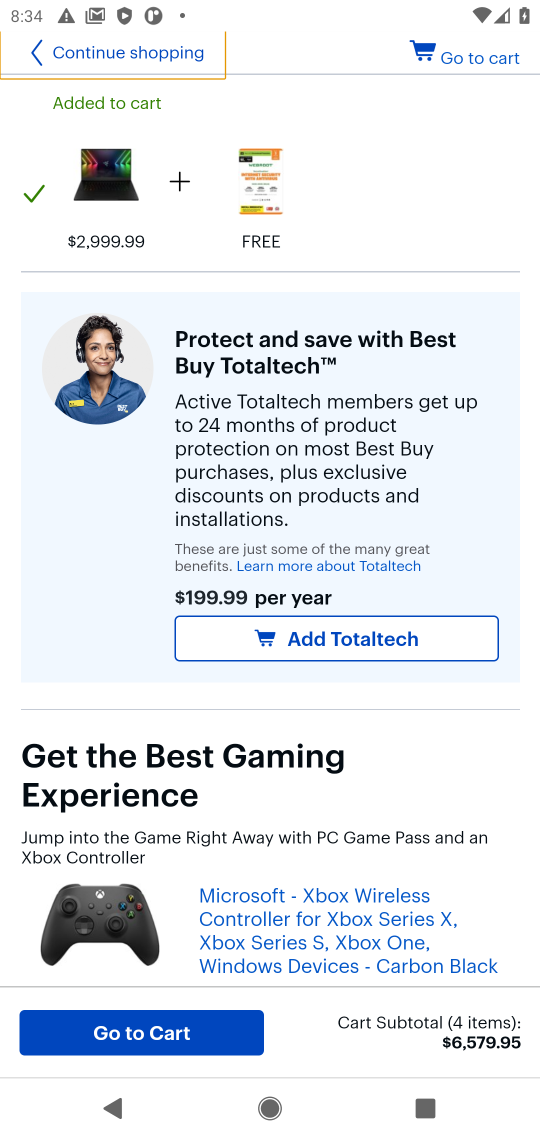
Step 48: click (193, 1034)
Your task to perform on an android device: View the shopping cart on newegg. Add razer blade to the cart on newegg, then select checkout. Image 49: 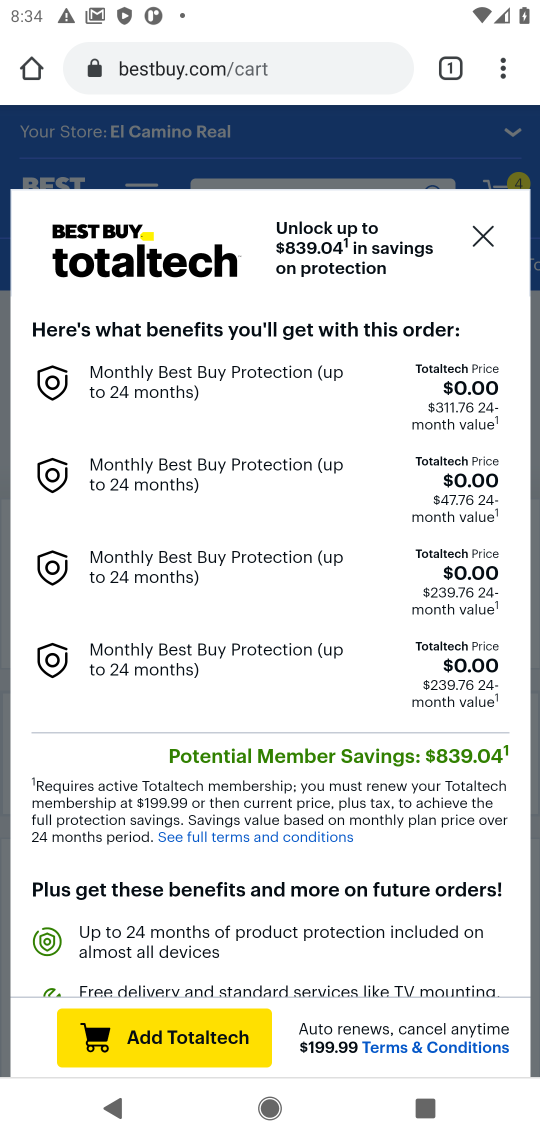
Step 49: click (480, 234)
Your task to perform on an android device: View the shopping cart on newegg. Add razer blade to the cart on newegg, then select checkout. Image 50: 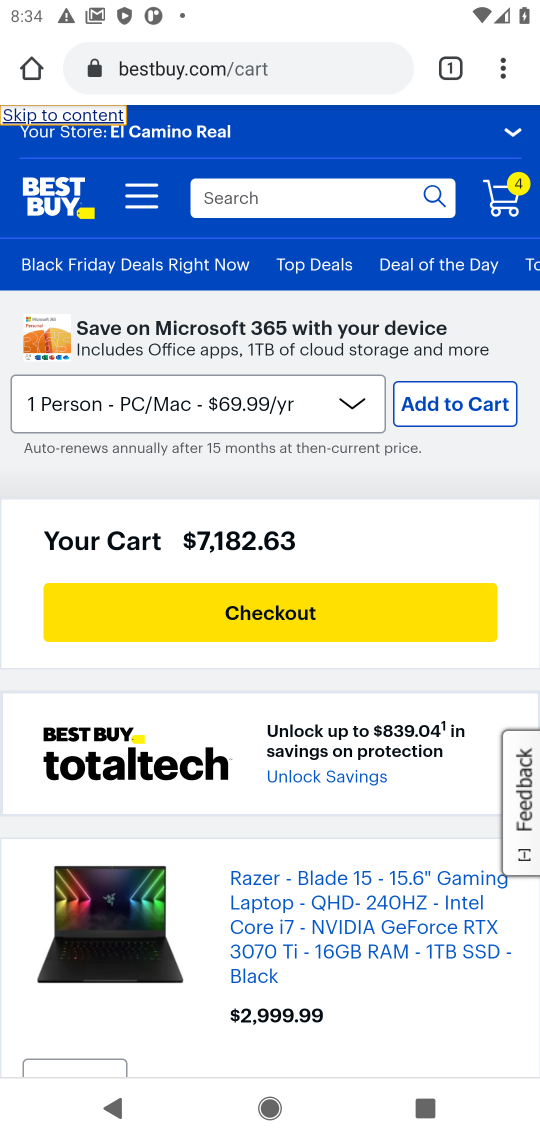
Step 50: click (274, 624)
Your task to perform on an android device: View the shopping cart on newegg. Add razer blade to the cart on newegg, then select checkout. Image 51: 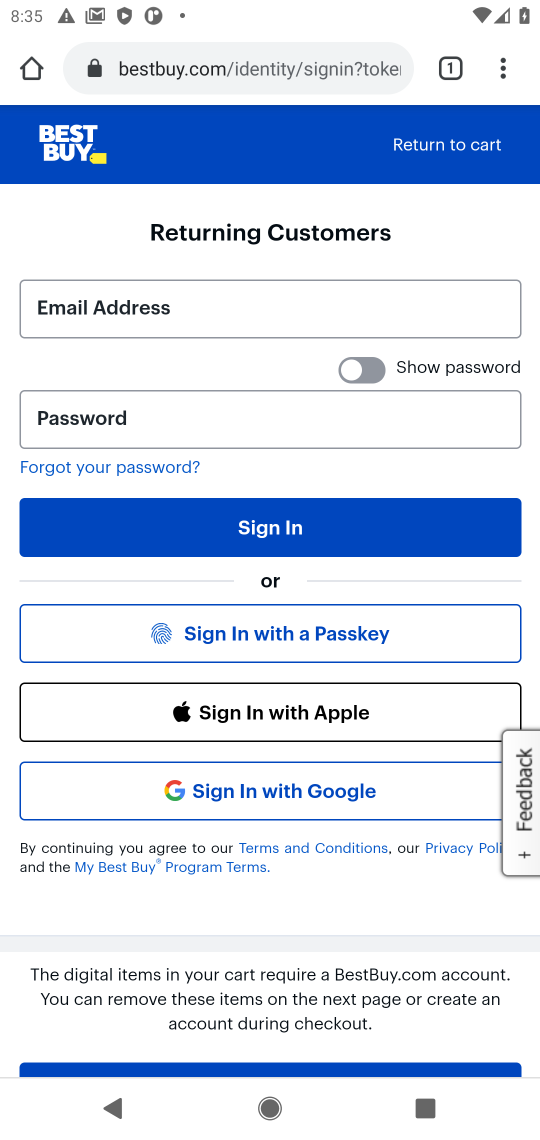
Step 51: task complete